Your task to perform on an android device: Go to Maps Image 0: 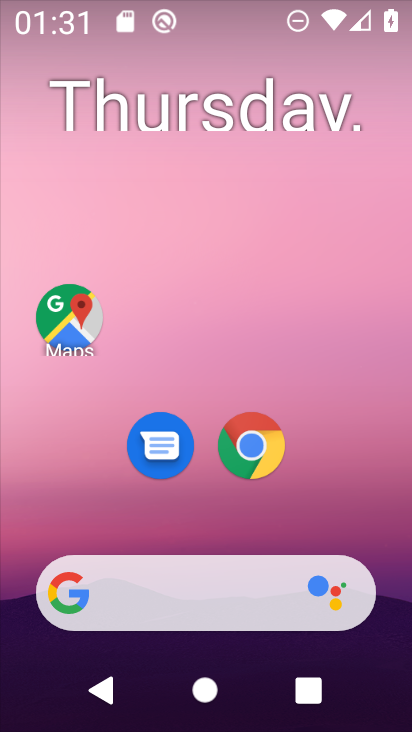
Step 0: click (77, 300)
Your task to perform on an android device: Go to Maps Image 1: 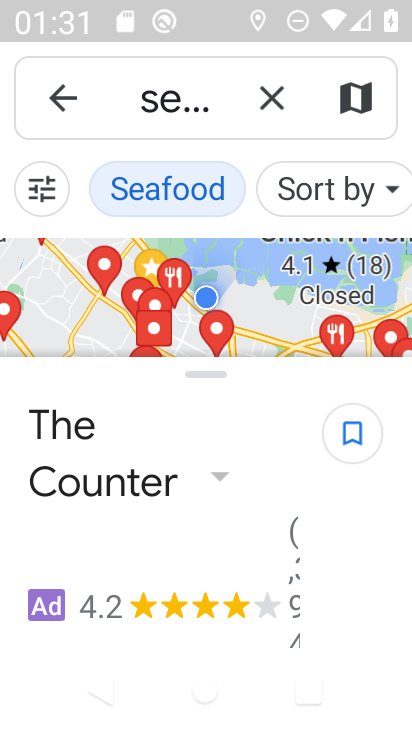
Step 1: task complete